Your task to perform on an android device: turn on airplane mode Image 0: 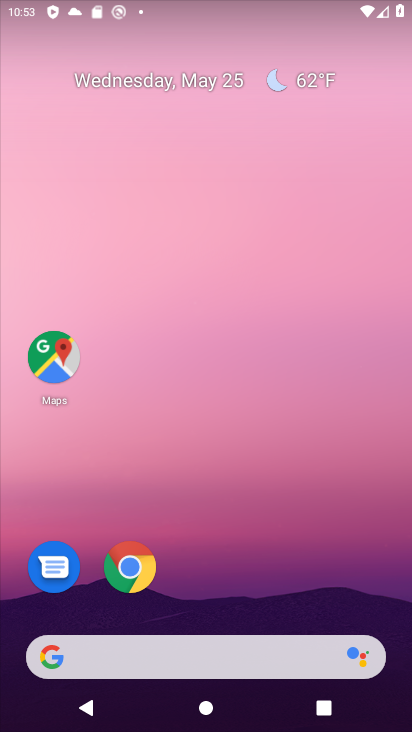
Step 0: drag from (270, 6) to (272, 595)
Your task to perform on an android device: turn on airplane mode Image 1: 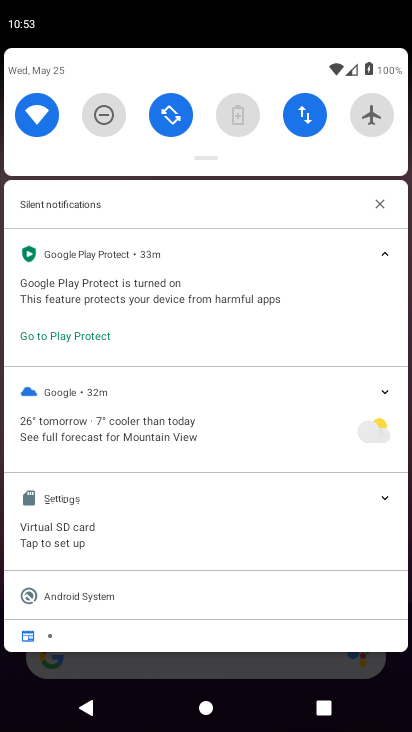
Step 1: click (363, 101)
Your task to perform on an android device: turn on airplane mode Image 2: 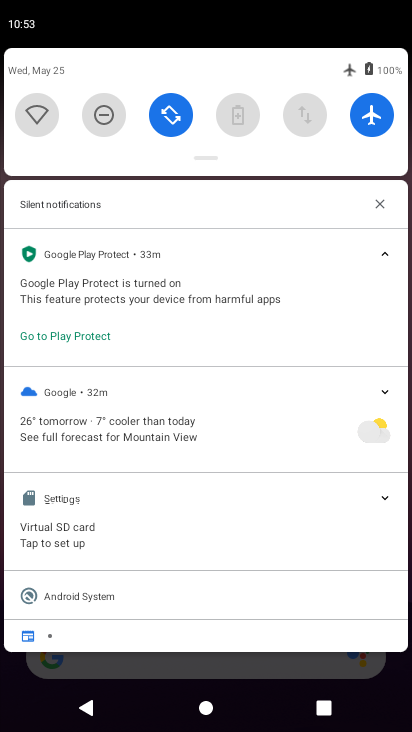
Step 2: task complete